Your task to perform on an android device: Is it going to rain this weekend? Image 0: 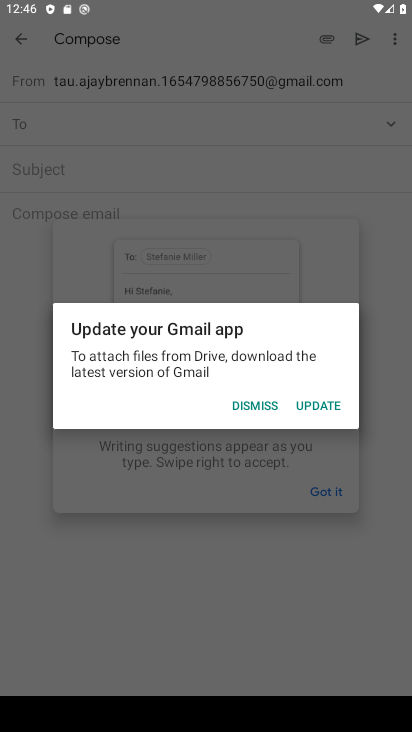
Step 0: press home button
Your task to perform on an android device: Is it going to rain this weekend? Image 1: 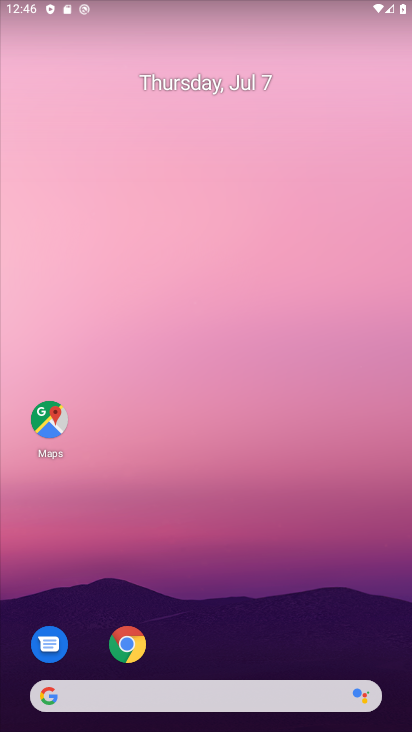
Step 1: drag from (235, 607) to (180, 218)
Your task to perform on an android device: Is it going to rain this weekend? Image 2: 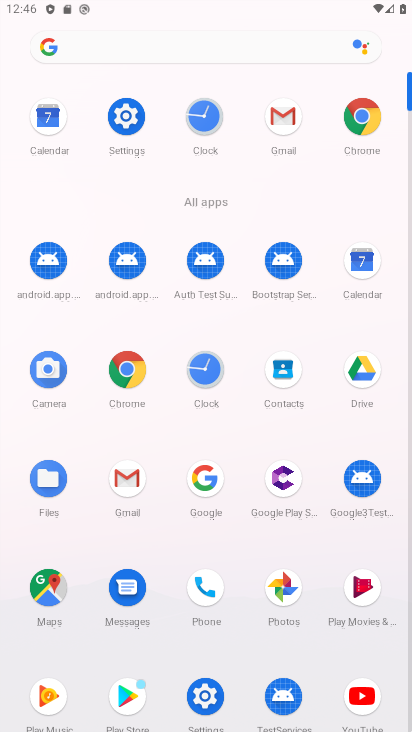
Step 2: click (360, 115)
Your task to perform on an android device: Is it going to rain this weekend? Image 3: 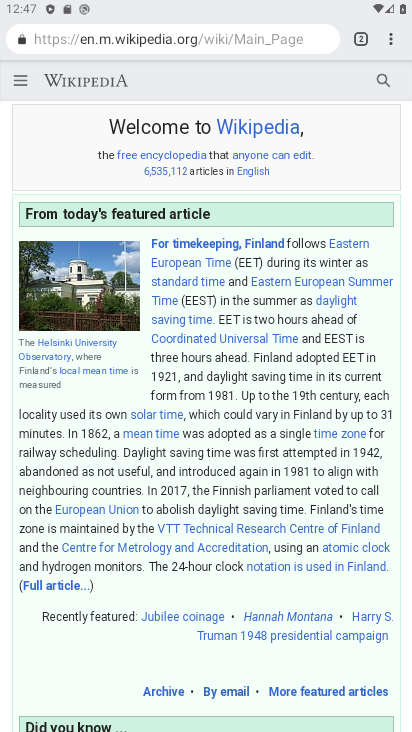
Step 3: click (198, 36)
Your task to perform on an android device: Is it going to rain this weekend? Image 4: 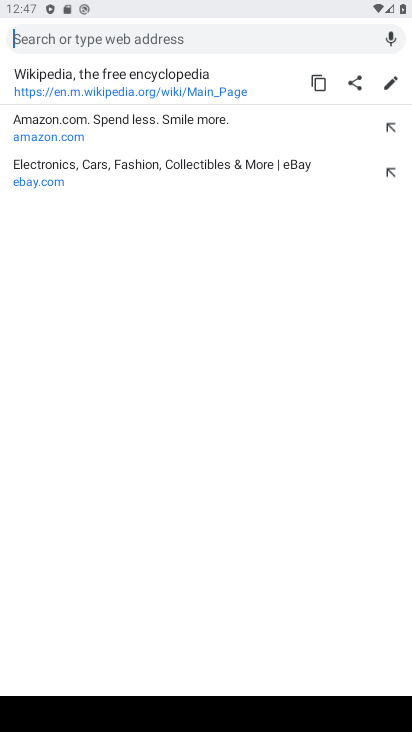
Step 4: type "Is it going to rain this weekend?"
Your task to perform on an android device: Is it going to rain this weekend? Image 5: 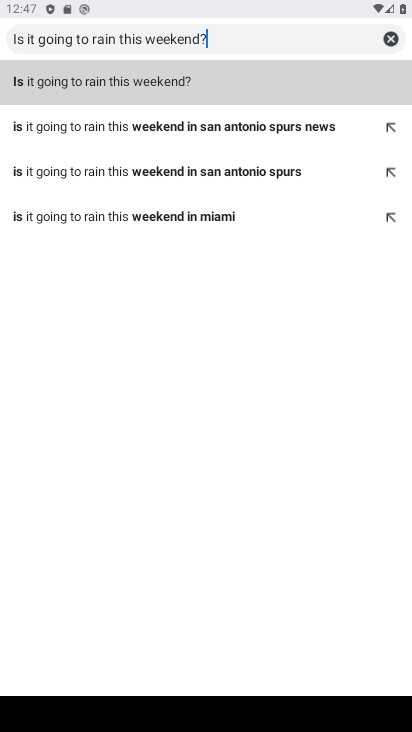
Step 5: click (386, 78)
Your task to perform on an android device: Is it going to rain this weekend? Image 6: 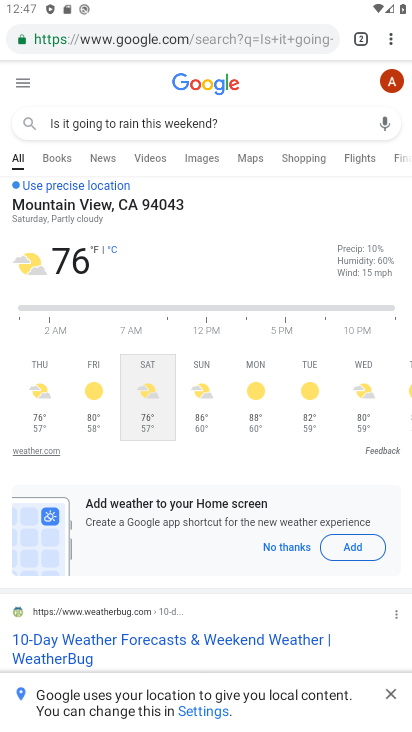
Step 6: task complete